Your task to perform on an android device: clear history in the chrome app Image 0: 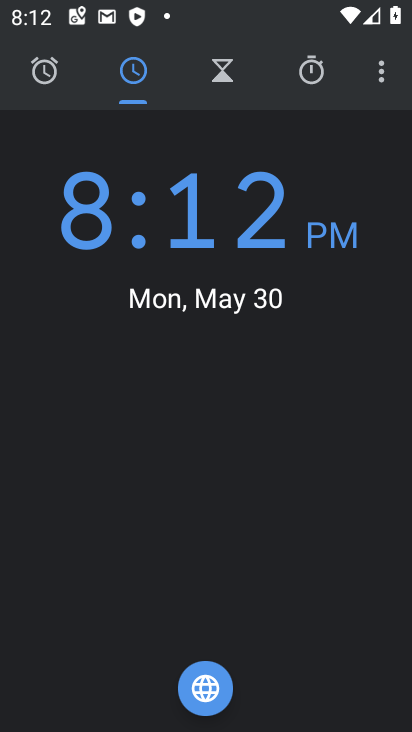
Step 0: press home button
Your task to perform on an android device: clear history in the chrome app Image 1: 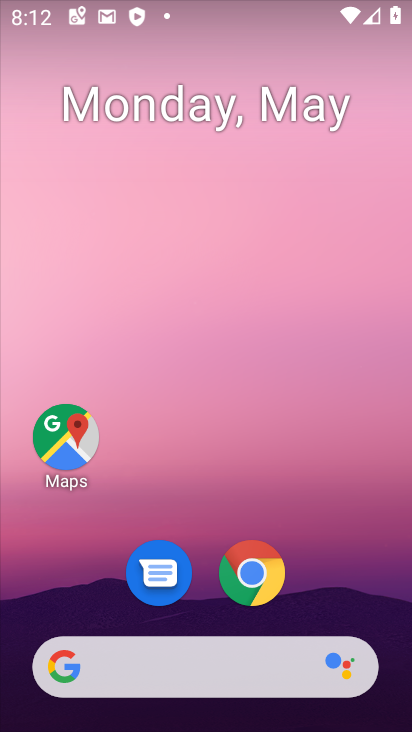
Step 1: drag from (196, 597) to (148, 98)
Your task to perform on an android device: clear history in the chrome app Image 2: 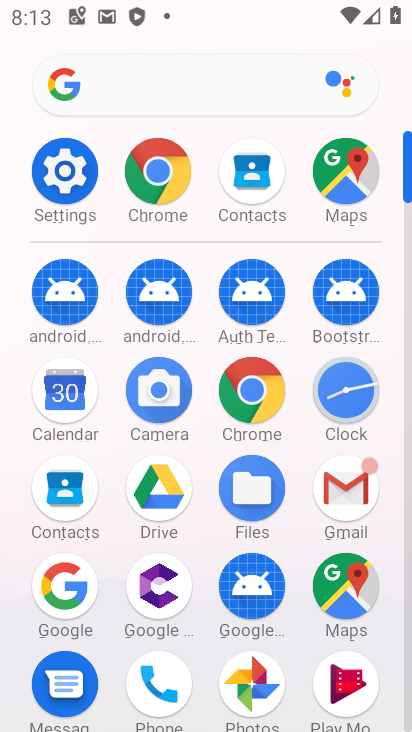
Step 2: click (169, 199)
Your task to perform on an android device: clear history in the chrome app Image 3: 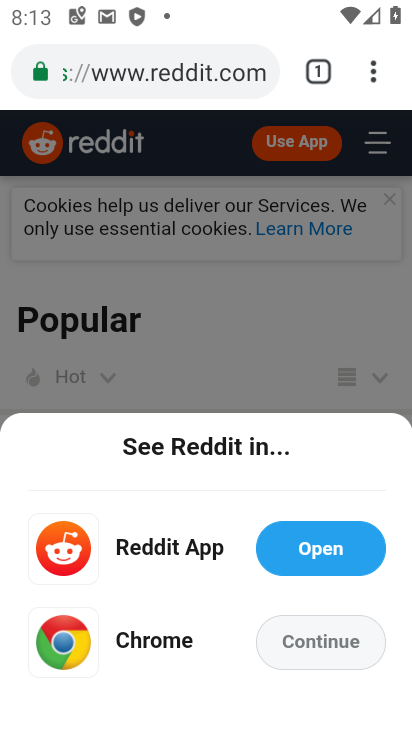
Step 3: click (377, 66)
Your task to perform on an android device: clear history in the chrome app Image 4: 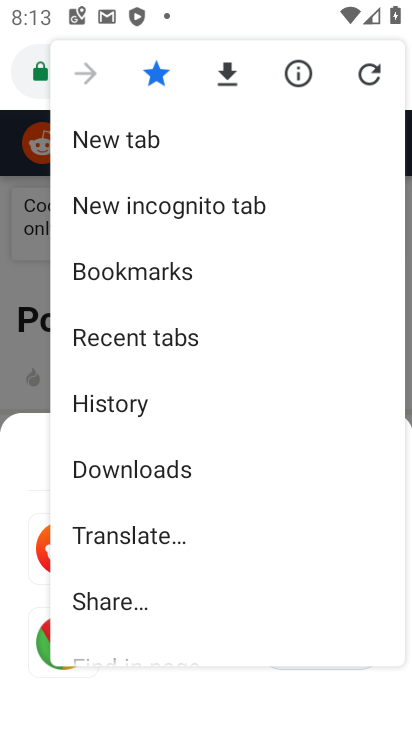
Step 4: click (175, 405)
Your task to perform on an android device: clear history in the chrome app Image 5: 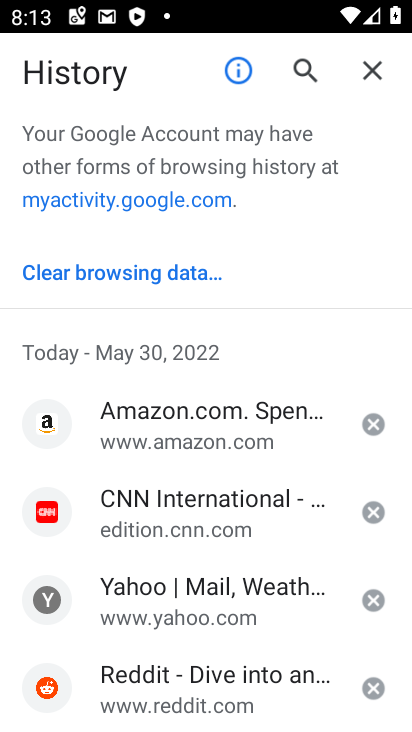
Step 5: click (112, 288)
Your task to perform on an android device: clear history in the chrome app Image 6: 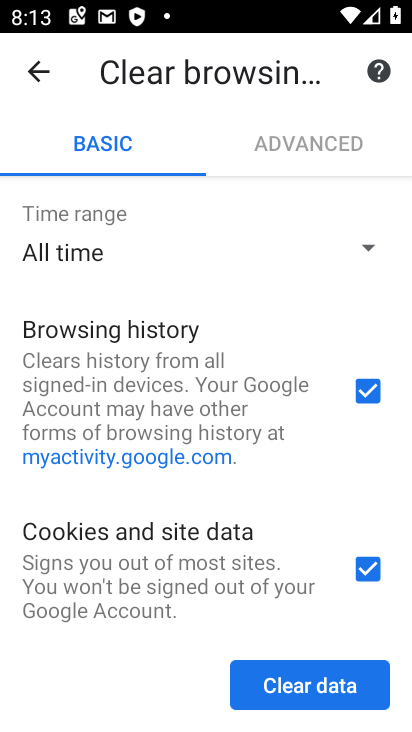
Step 6: click (379, 574)
Your task to perform on an android device: clear history in the chrome app Image 7: 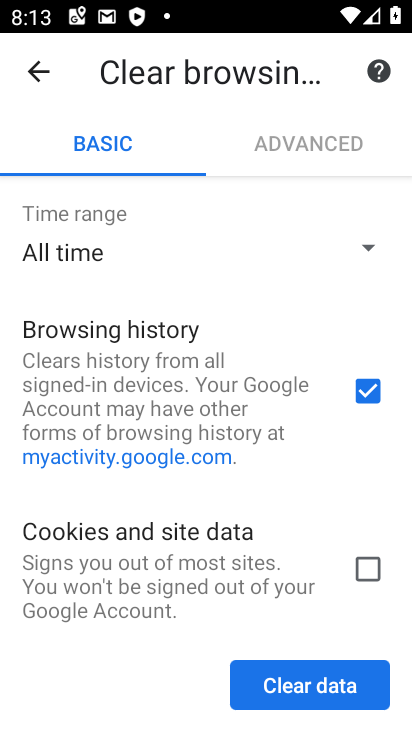
Step 7: click (349, 672)
Your task to perform on an android device: clear history in the chrome app Image 8: 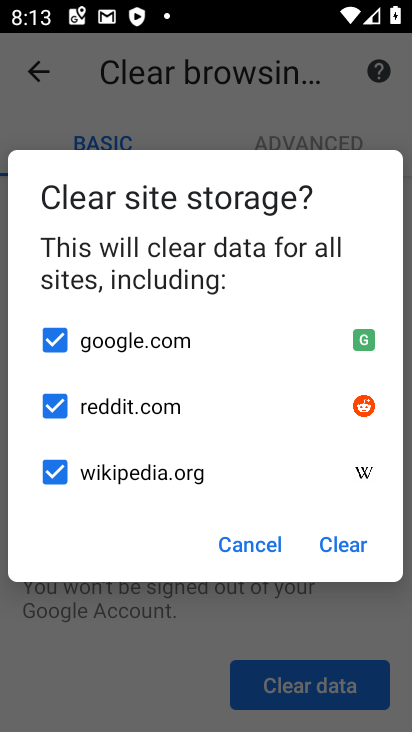
Step 8: click (370, 542)
Your task to perform on an android device: clear history in the chrome app Image 9: 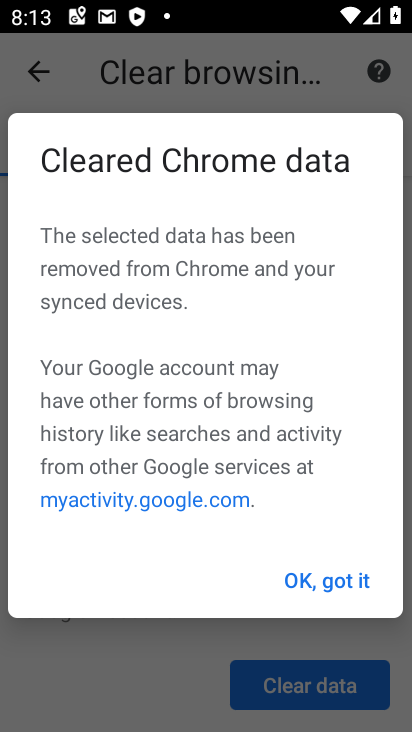
Step 9: click (369, 581)
Your task to perform on an android device: clear history in the chrome app Image 10: 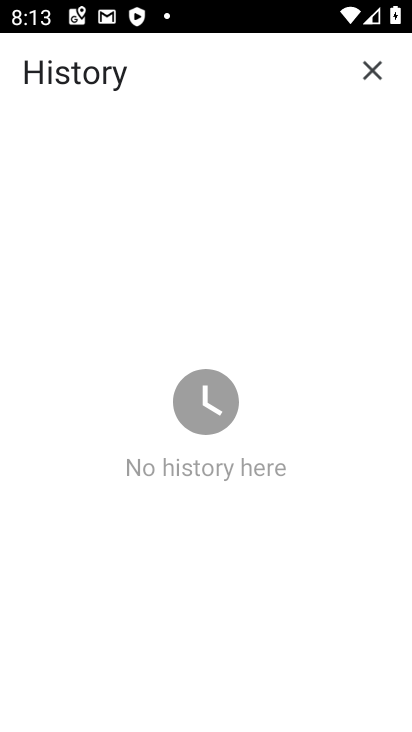
Step 10: task complete